Your task to perform on an android device: remove spam from my inbox in the gmail app Image 0: 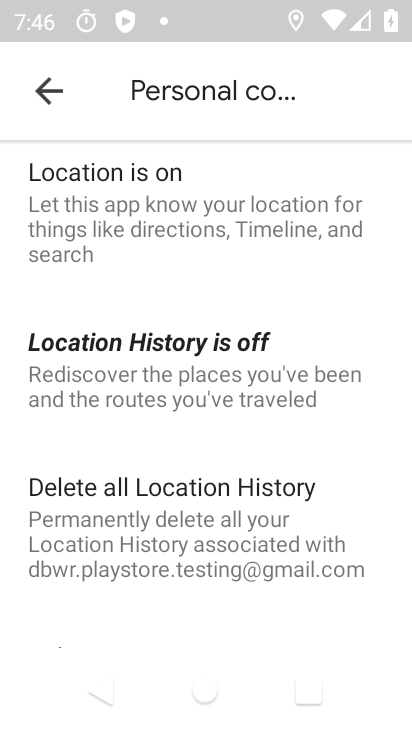
Step 0: press home button
Your task to perform on an android device: remove spam from my inbox in the gmail app Image 1: 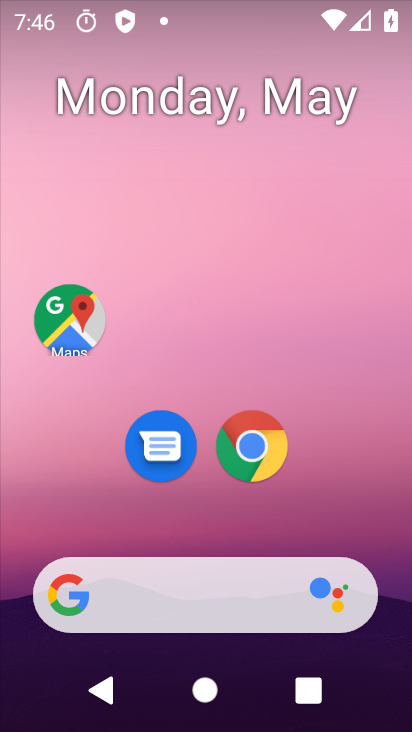
Step 1: drag from (360, 519) to (322, 26)
Your task to perform on an android device: remove spam from my inbox in the gmail app Image 2: 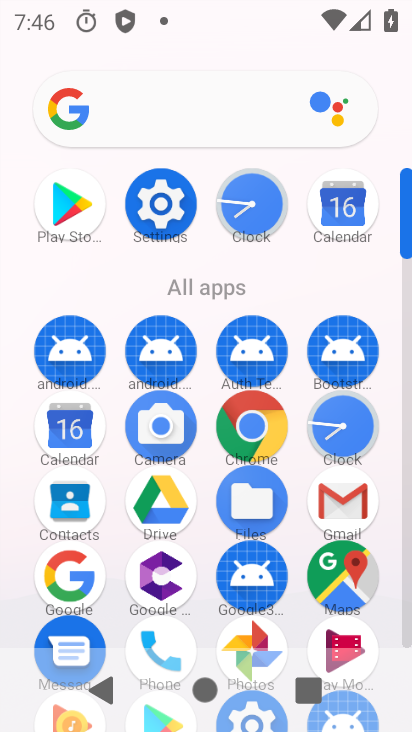
Step 2: click (335, 501)
Your task to perform on an android device: remove spam from my inbox in the gmail app Image 3: 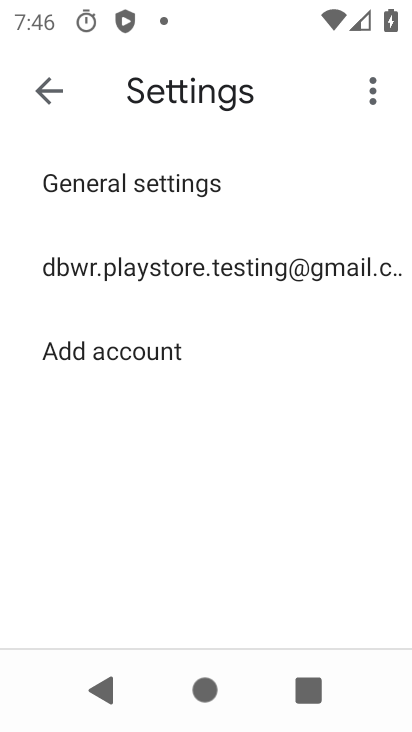
Step 3: click (42, 97)
Your task to perform on an android device: remove spam from my inbox in the gmail app Image 4: 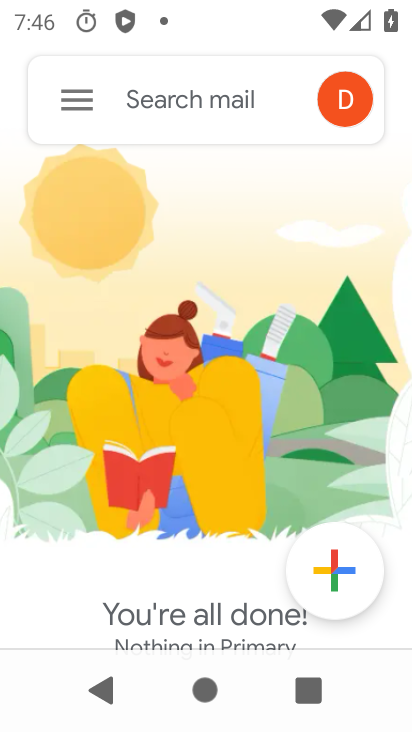
Step 4: click (68, 98)
Your task to perform on an android device: remove spam from my inbox in the gmail app Image 5: 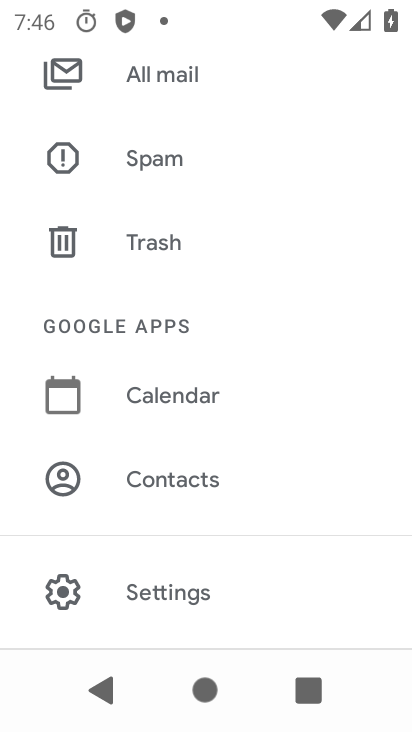
Step 5: click (144, 171)
Your task to perform on an android device: remove spam from my inbox in the gmail app Image 6: 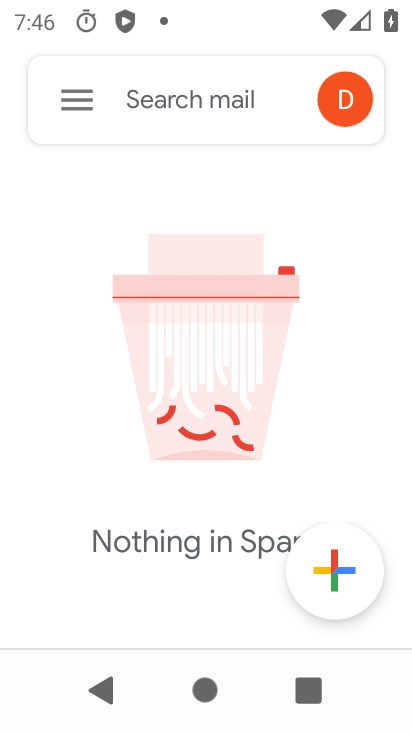
Step 6: task complete